Your task to perform on an android device: What's on my calendar today? Image 0: 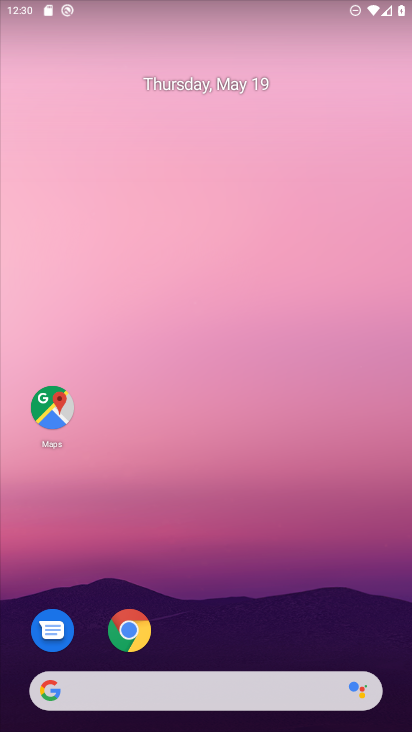
Step 0: drag from (245, 506) to (283, 204)
Your task to perform on an android device: What's on my calendar today? Image 1: 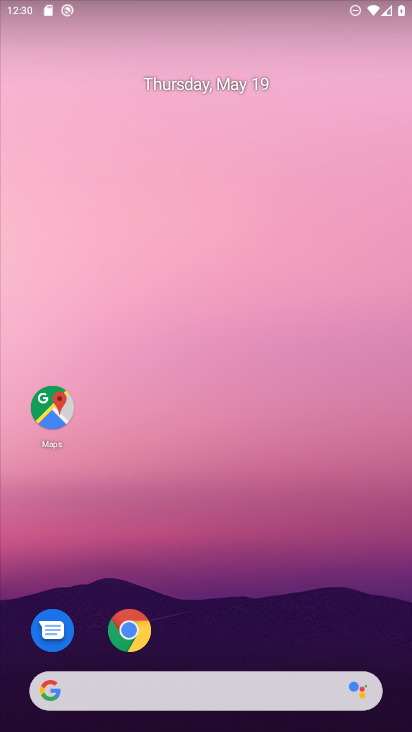
Step 1: drag from (198, 660) to (279, 171)
Your task to perform on an android device: What's on my calendar today? Image 2: 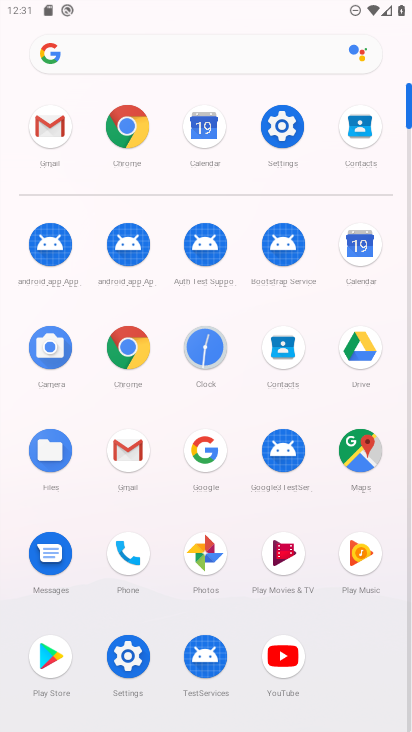
Step 2: click (355, 250)
Your task to perform on an android device: What's on my calendar today? Image 3: 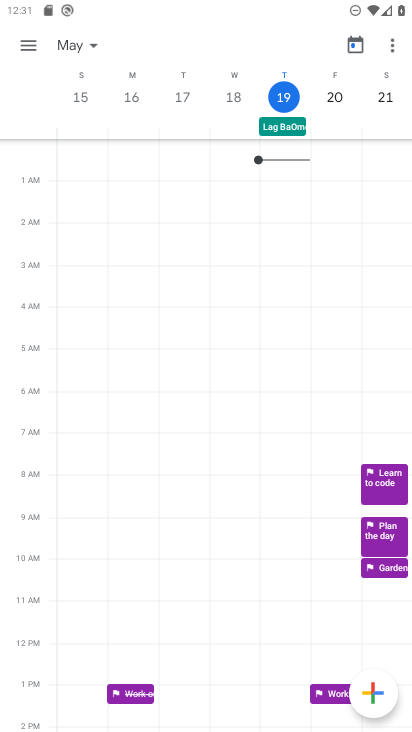
Step 3: click (90, 43)
Your task to perform on an android device: What's on my calendar today? Image 4: 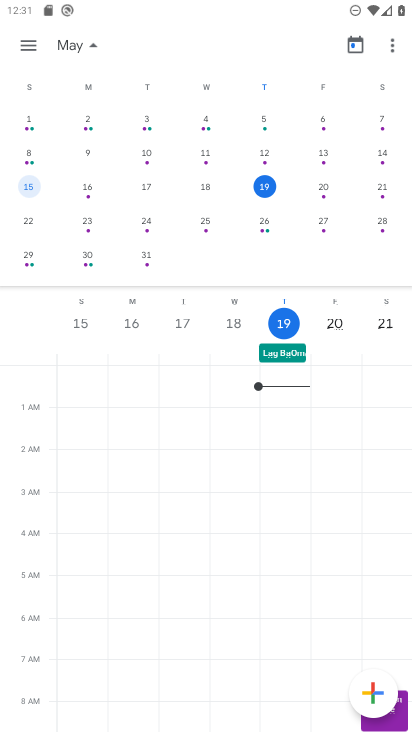
Step 4: click (271, 187)
Your task to perform on an android device: What's on my calendar today? Image 5: 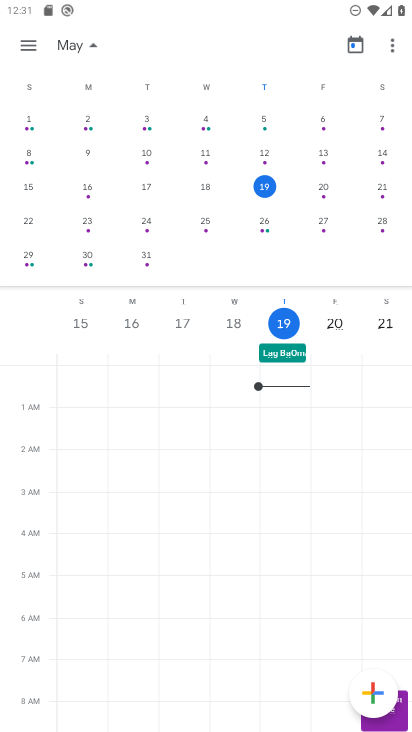
Step 5: task complete